Your task to perform on an android device: Go to accessibility settings Image 0: 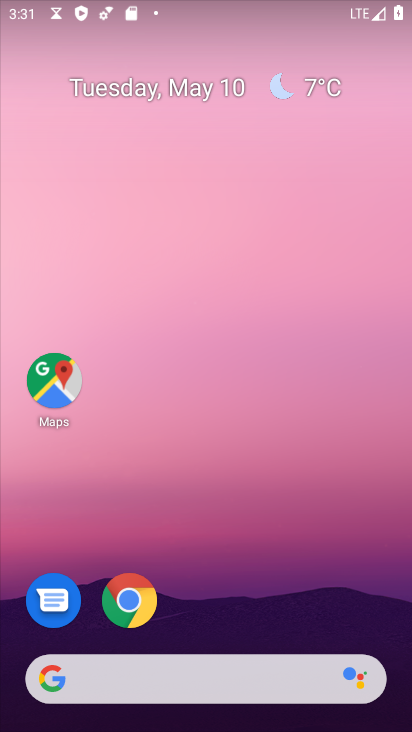
Step 0: drag from (180, 607) to (225, 304)
Your task to perform on an android device: Go to accessibility settings Image 1: 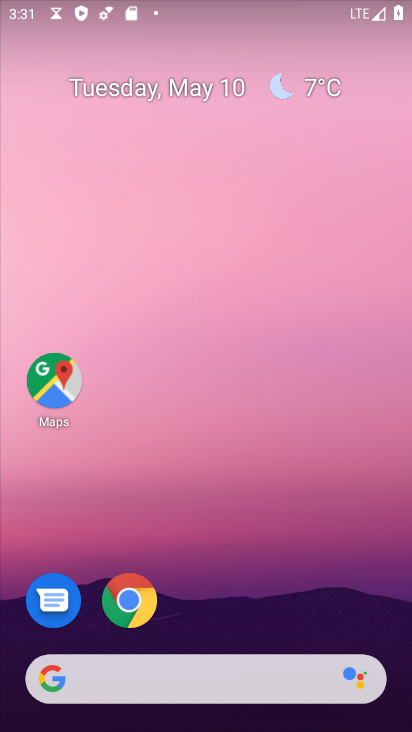
Step 1: drag from (249, 550) to (274, 16)
Your task to perform on an android device: Go to accessibility settings Image 2: 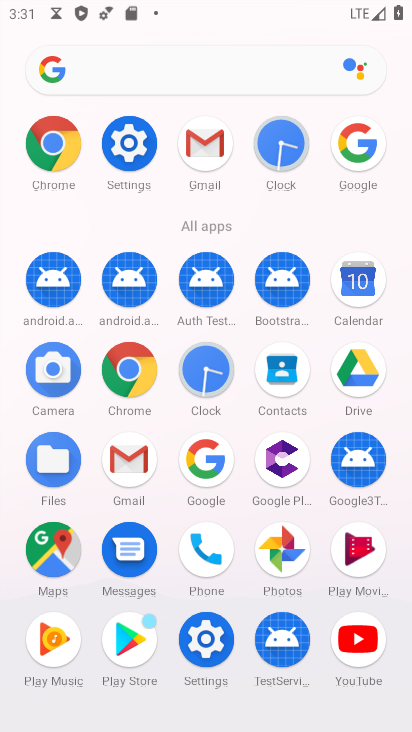
Step 2: click (132, 152)
Your task to perform on an android device: Go to accessibility settings Image 3: 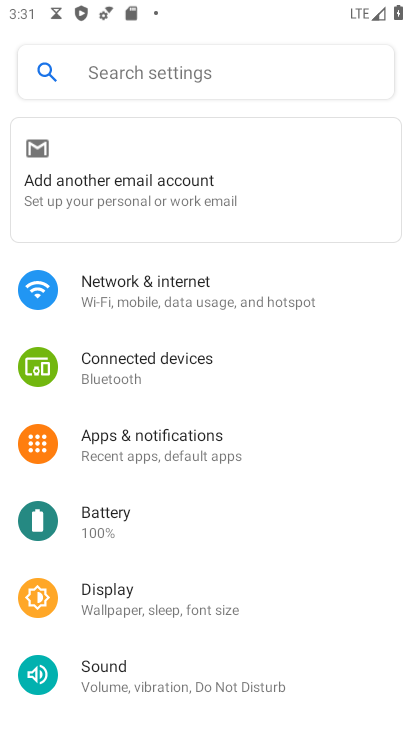
Step 3: drag from (176, 561) to (198, 317)
Your task to perform on an android device: Go to accessibility settings Image 4: 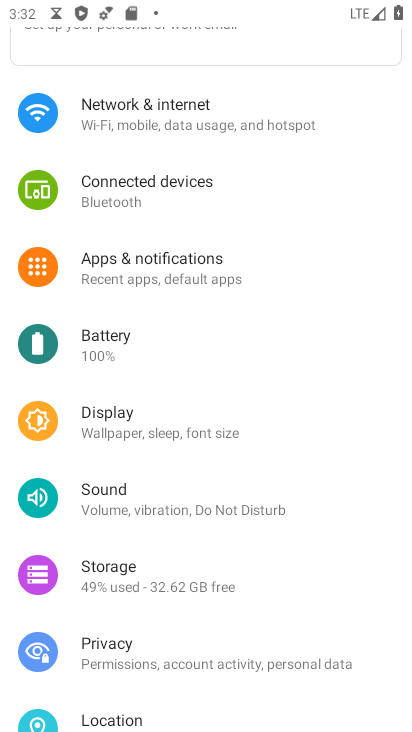
Step 4: click (225, 331)
Your task to perform on an android device: Go to accessibility settings Image 5: 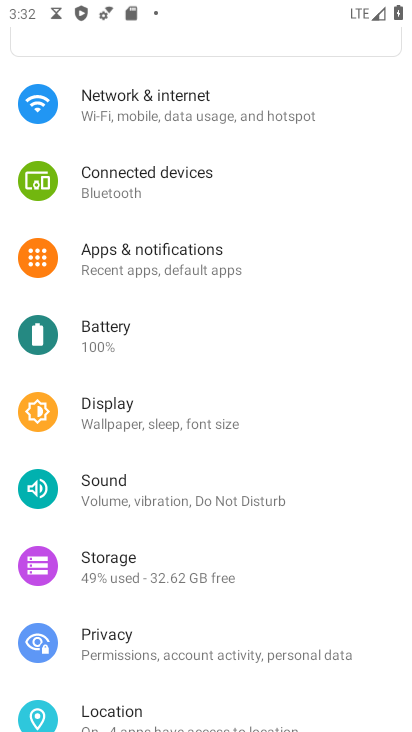
Step 5: drag from (216, 388) to (216, 347)
Your task to perform on an android device: Go to accessibility settings Image 6: 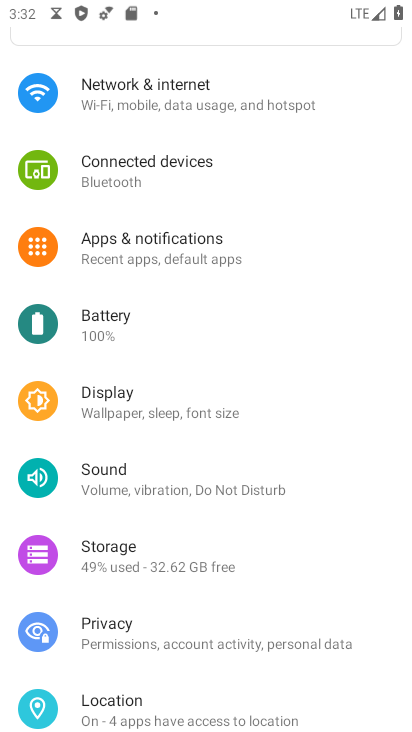
Step 6: drag from (197, 435) to (199, 714)
Your task to perform on an android device: Go to accessibility settings Image 7: 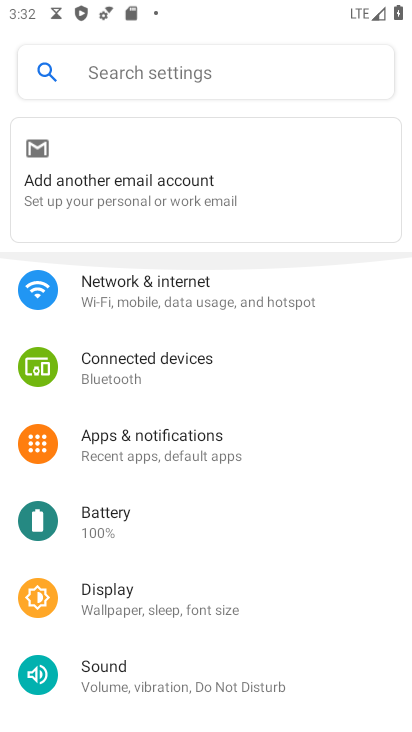
Step 7: drag from (239, 589) to (244, 23)
Your task to perform on an android device: Go to accessibility settings Image 8: 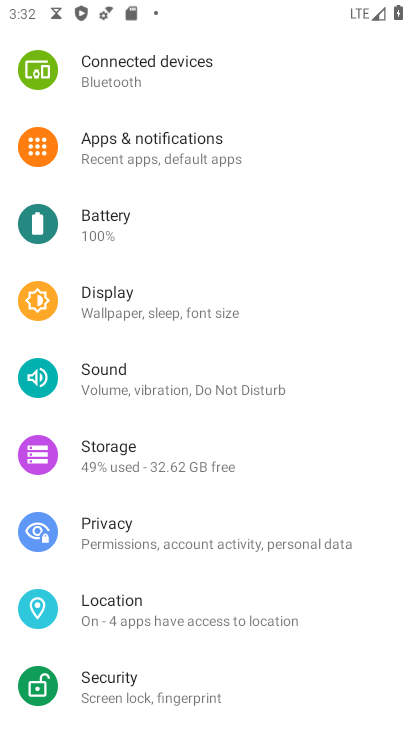
Step 8: drag from (175, 611) to (310, 7)
Your task to perform on an android device: Go to accessibility settings Image 9: 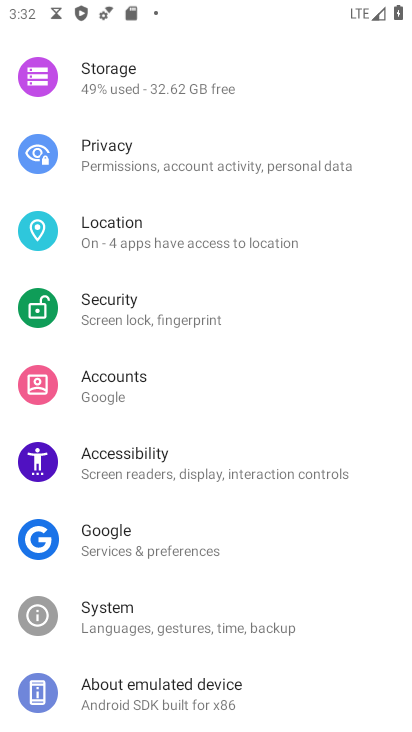
Step 9: click (139, 461)
Your task to perform on an android device: Go to accessibility settings Image 10: 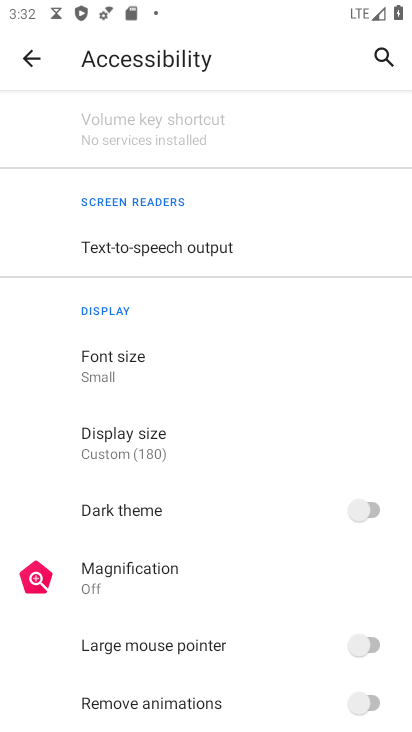
Step 10: task complete